Your task to perform on an android device: Is it going to rain this weekend? Image 0: 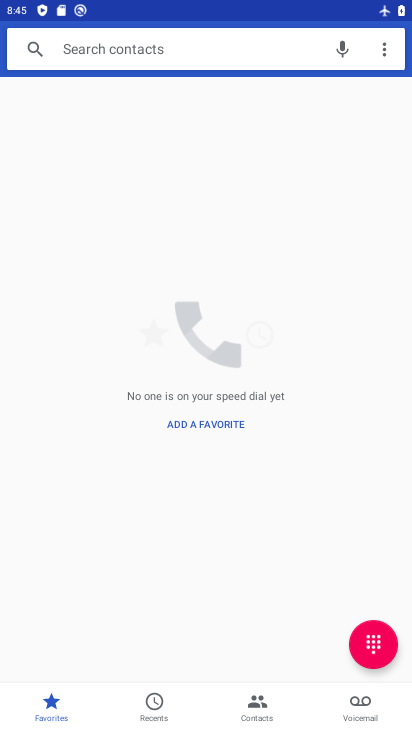
Step 0: press home button
Your task to perform on an android device: Is it going to rain this weekend? Image 1: 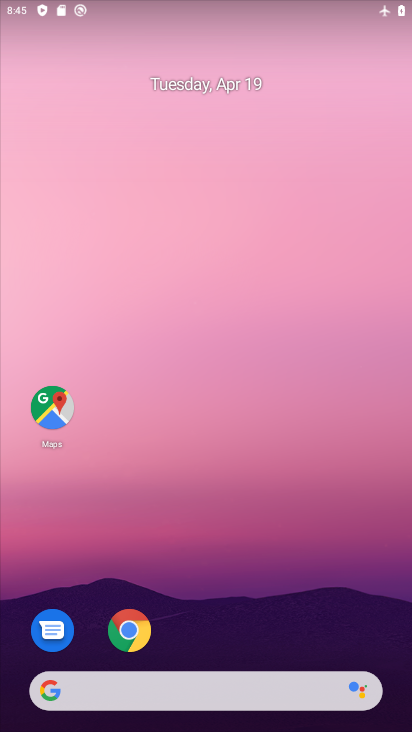
Step 1: drag from (252, 608) to (245, 170)
Your task to perform on an android device: Is it going to rain this weekend? Image 2: 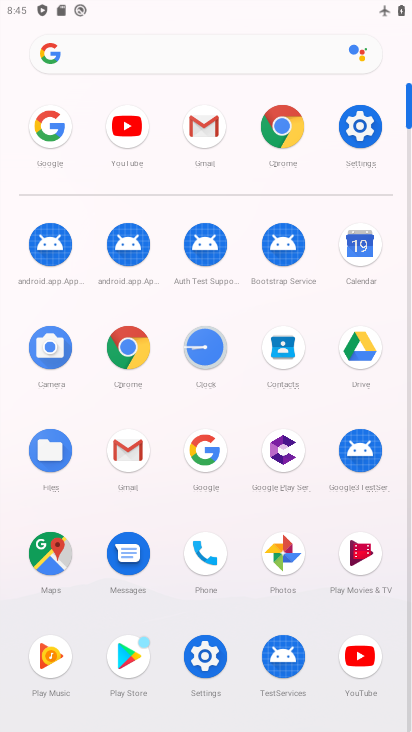
Step 2: click (367, 142)
Your task to perform on an android device: Is it going to rain this weekend? Image 3: 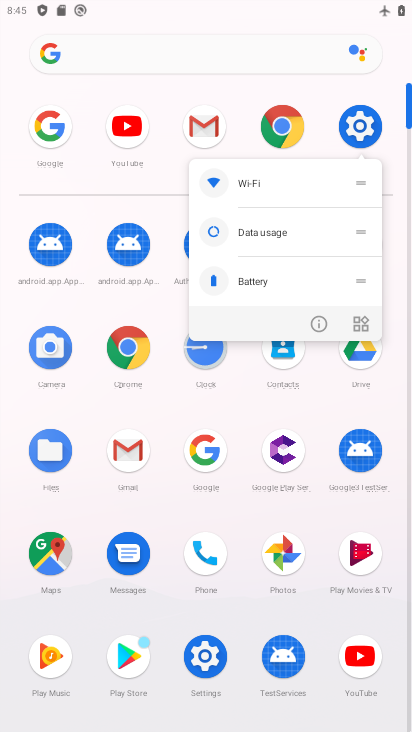
Step 3: click (212, 467)
Your task to perform on an android device: Is it going to rain this weekend? Image 4: 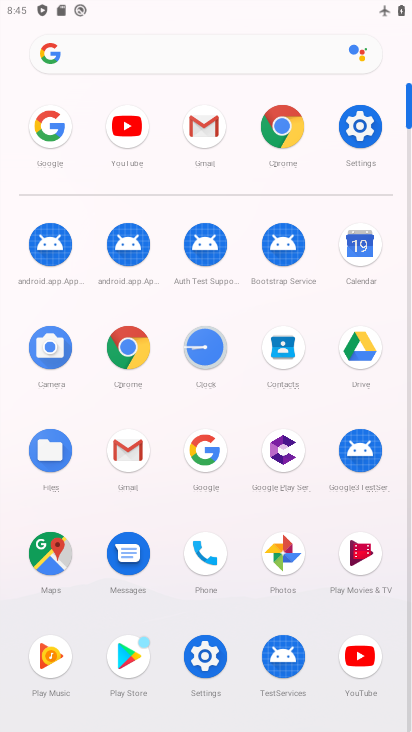
Step 4: click (212, 467)
Your task to perform on an android device: Is it going to rain this weekend? Image 5: 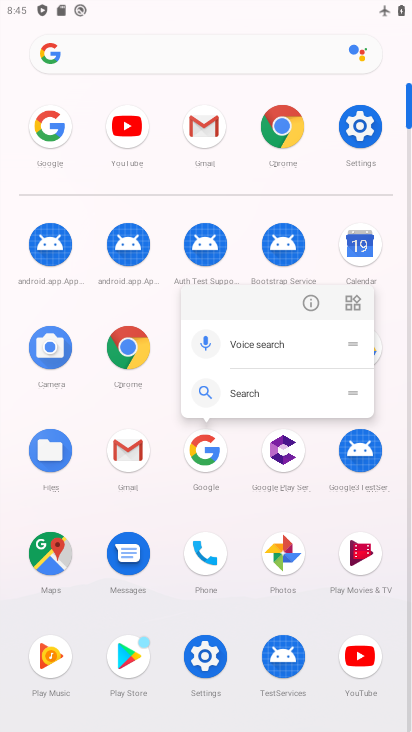
Step 5: click (212, 467)
Your task to perform on an android device: Is it going to rain this weekend? Image 6: 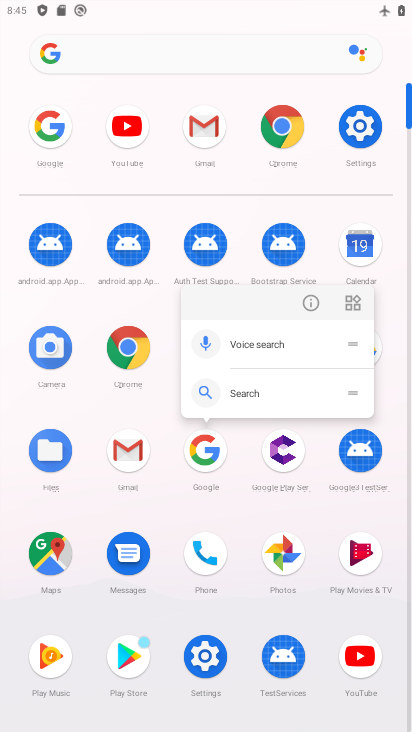
Step 6: click (212, 467)
Your task to perform on an android device: Is it going to rain this weekend? Image 7: 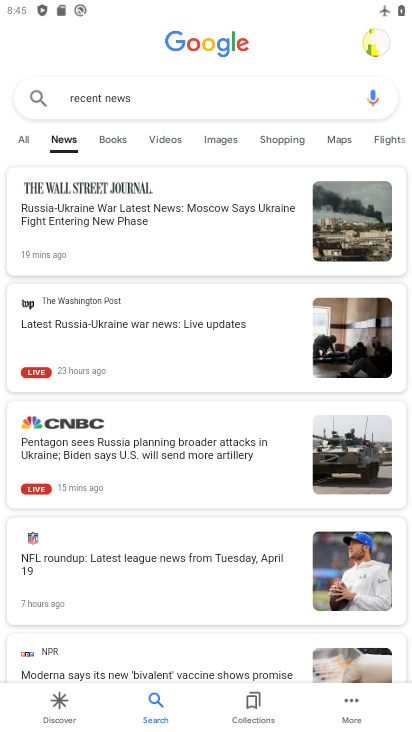
Step 7: click (189, 95)
Your task to perform on an android device: Is it going to rain this weekend? Image 8: 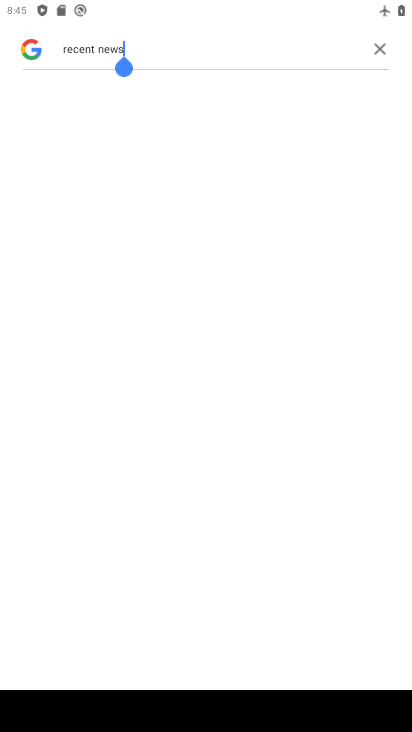
Step 8: click (380, 51)
Your task to perform on an android device: Is it going to rain this weekend? Image 9: 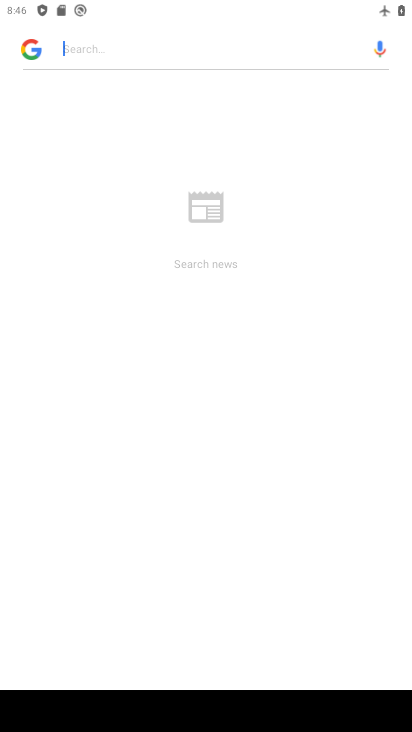
Step 9: type "saturday weather"
Your task to perform on an android device: Is it going to rain this weekend? Image 10: 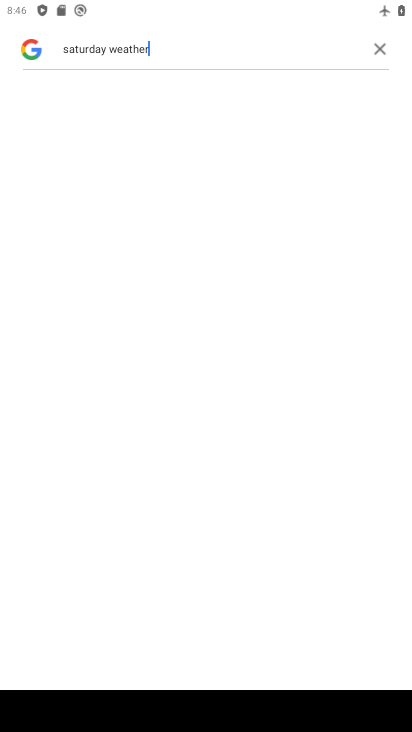
Step 10: task complete